Your task to perform on an android device: move a message to another label in the gmail app Image 0: 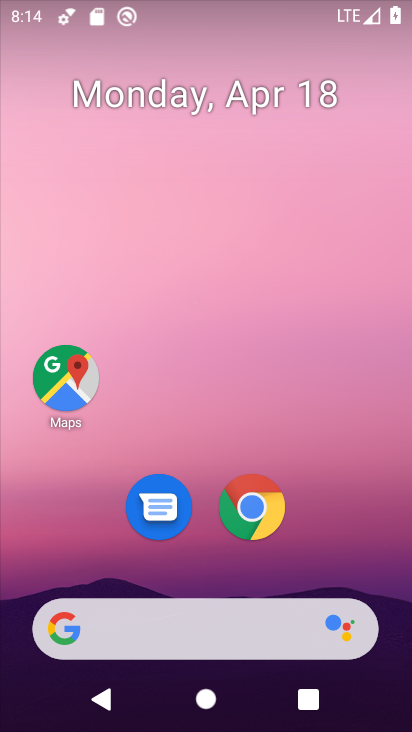
Step 0: click (8, 500)
Your task to perform on an android device: move a message to another label in the gmail app Image 1: 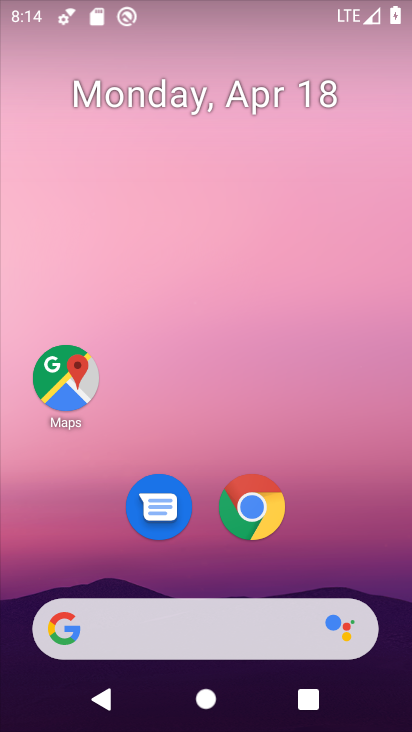
Step 1: drag from (152, 198) to (170, 21)
Your task to perform on an android device: move a message to another label in the gmail app Image 2: 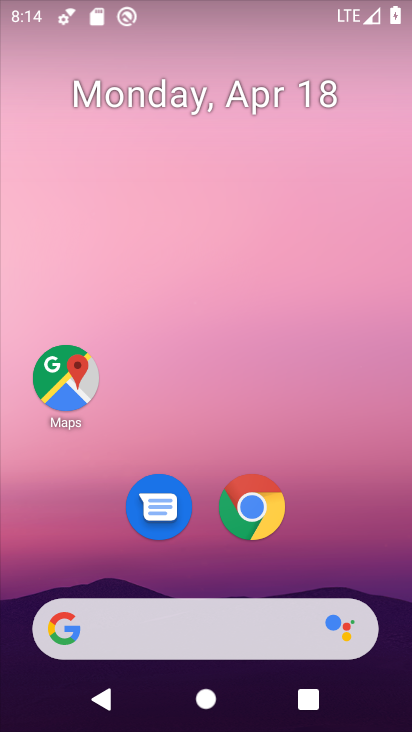
Step 2: drag from (14, 554) to (201, 11)
Your task to perform on an android device: move a message to another label in the gmail app Image 3: 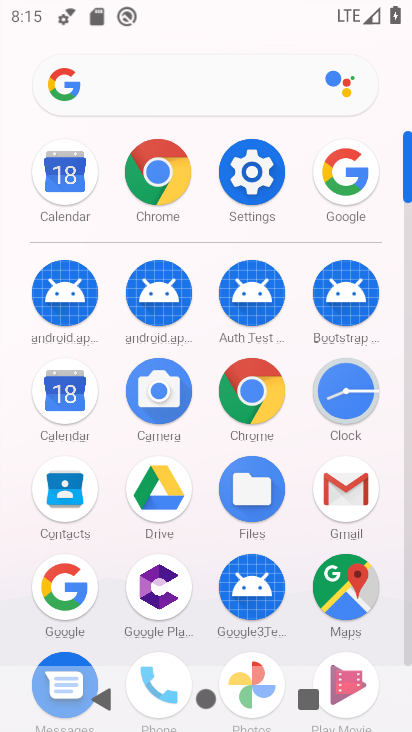
Step 3: click (354, 483)
Your task to perform on an android device: move a message to another label in the gmail app Image 4: 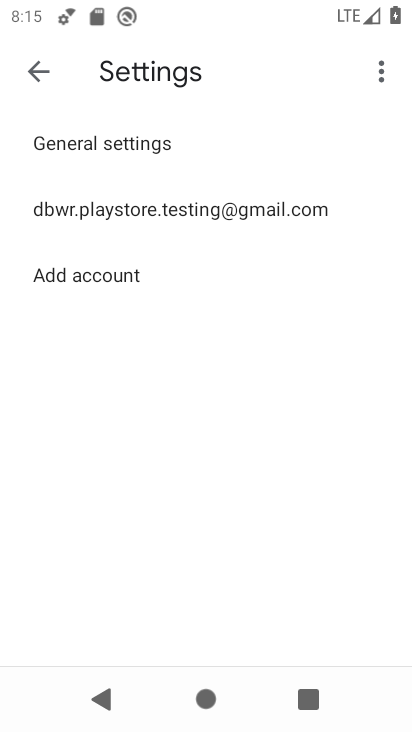
Step 4: click (247, 231)
Your task to perform on an android device: move a message to another label in the gmail app Image 5: 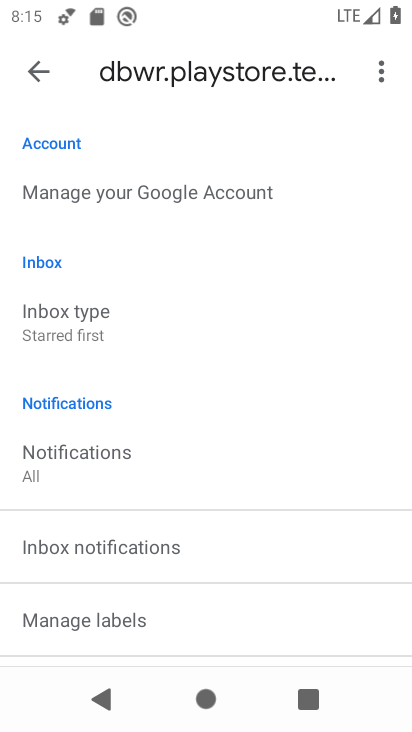
Step 5: click (30, 88)
Your task to perform on an android device: move a message to another label in the gmail app Image 6: 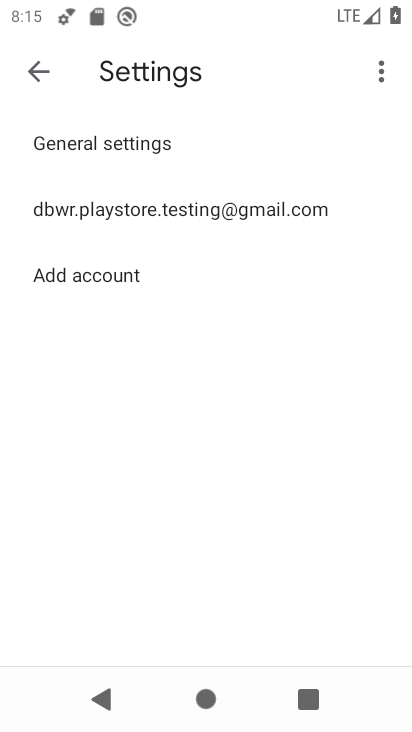
Step 6: press back button
Your task to perform on an android device: move a message to another label in the gmail app Image 7: 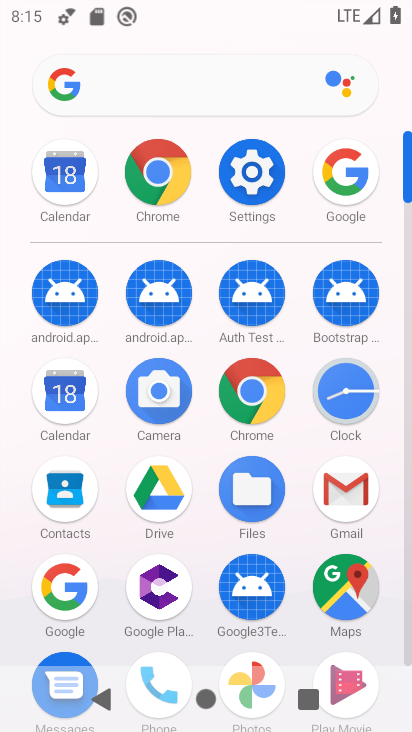
Step 7: click (344, 463)
Your task to perform on an android device: move a message to another label in the gmail app Image 8: 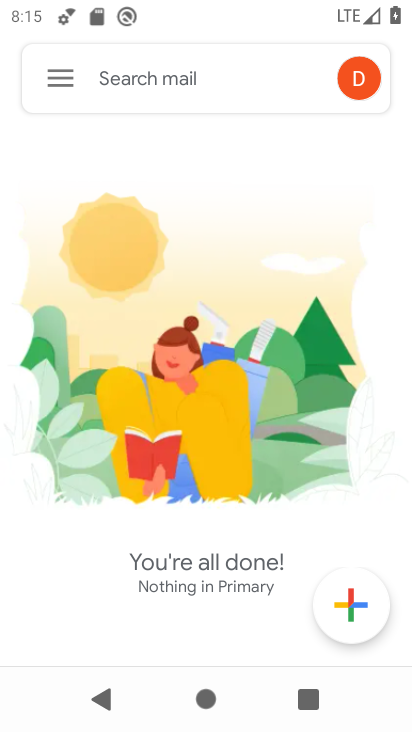
Step 8: task complete